Your task to perform on an android device: Set an alarm for 11am Image 0: 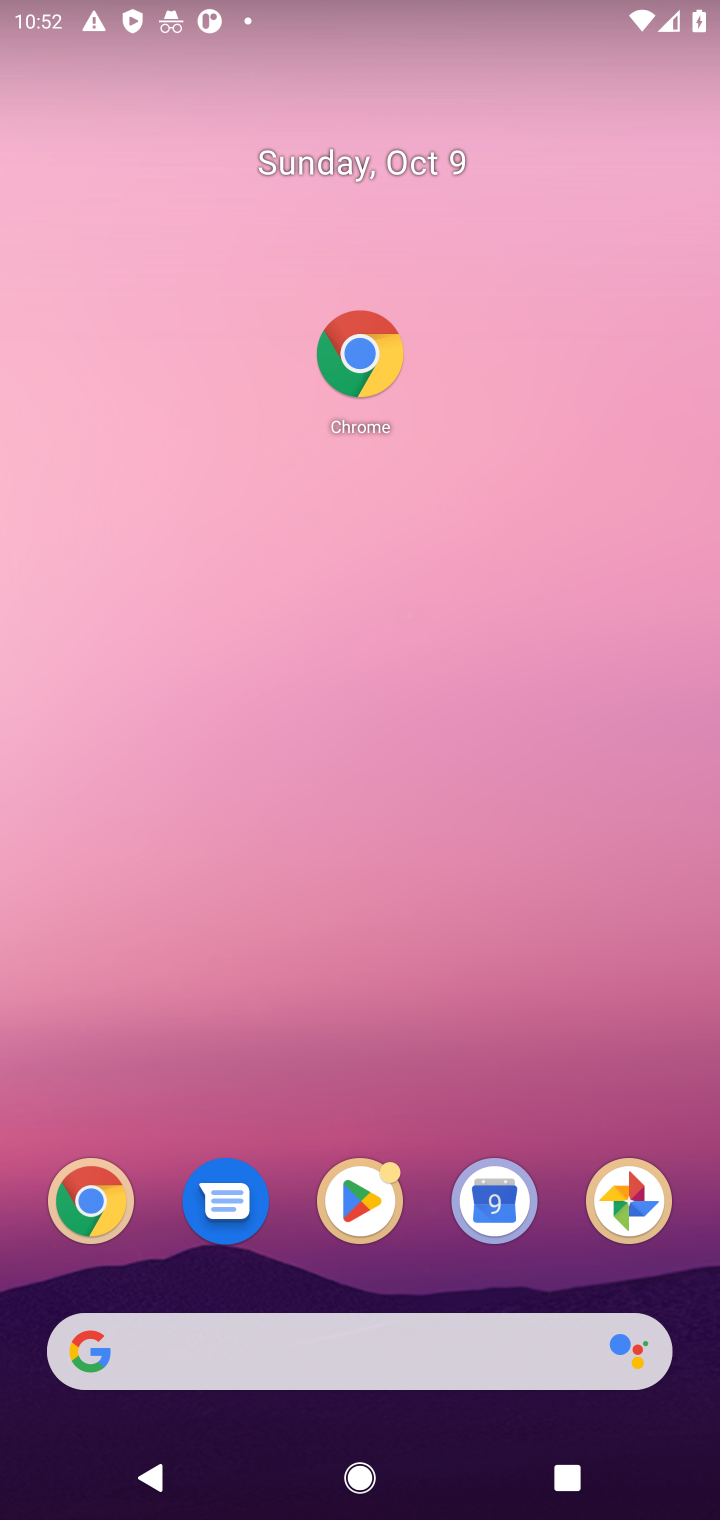
Step 0: drag from (442, 1277) to (334, 481)
Your task to perform on an android device: Set an alarm for 11am Image 1: 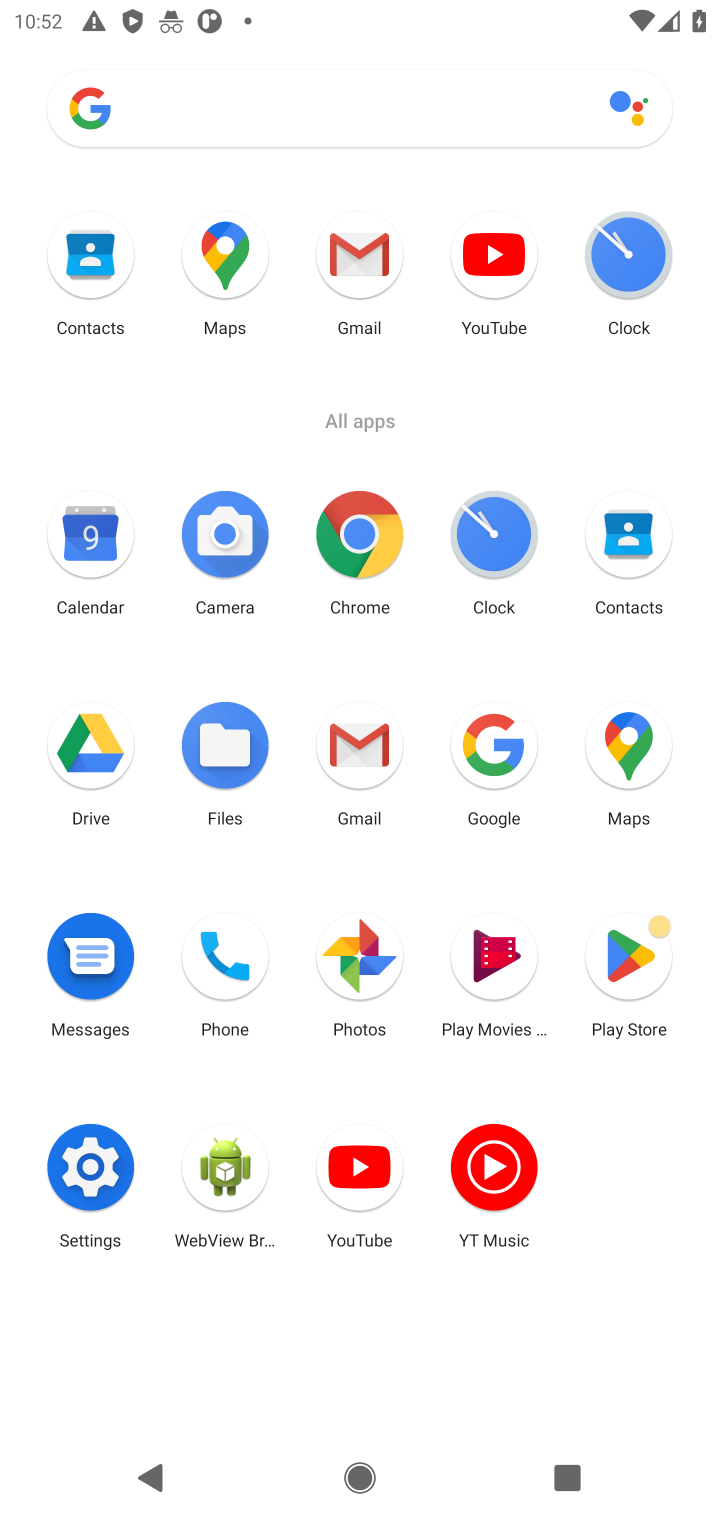
Step 1: click (510, 534)
Your task to perform on an android device: Set an alarm for 11am Image 2: 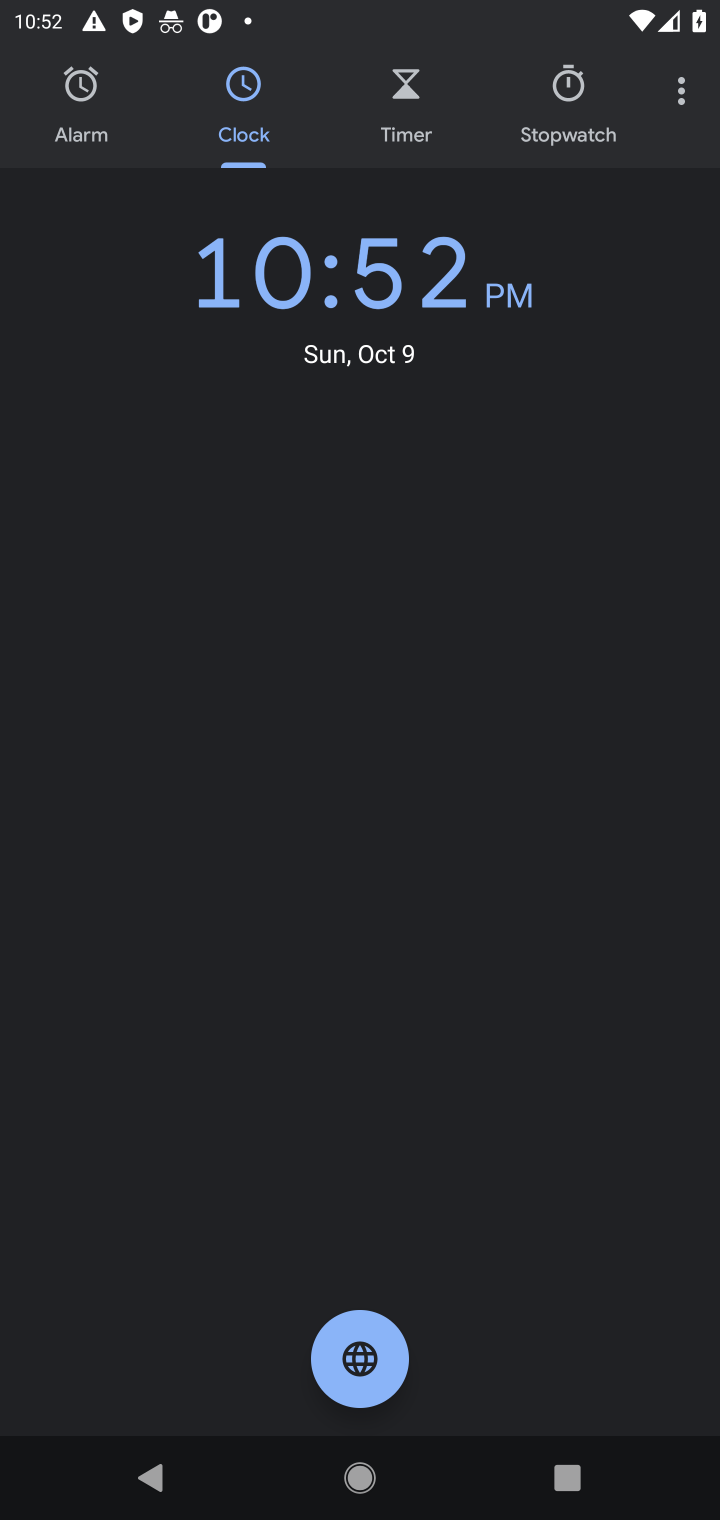
Step 2: click (77, 102)
Your task to perform on an android device: Set an alarm for 11am Image 3: 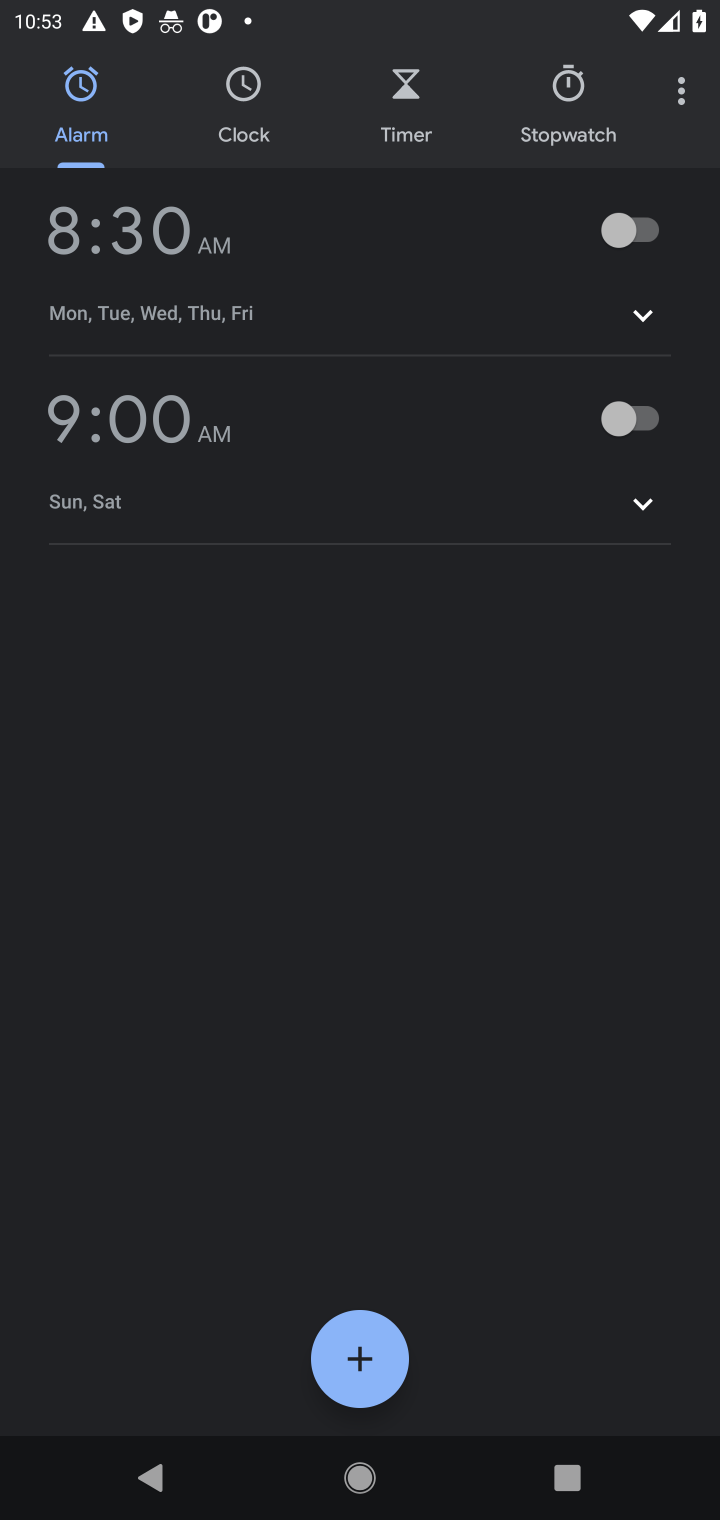
Step 3: click (251, 442)
Your task to perform on an android device: Set an alarm for 11am Image 4: 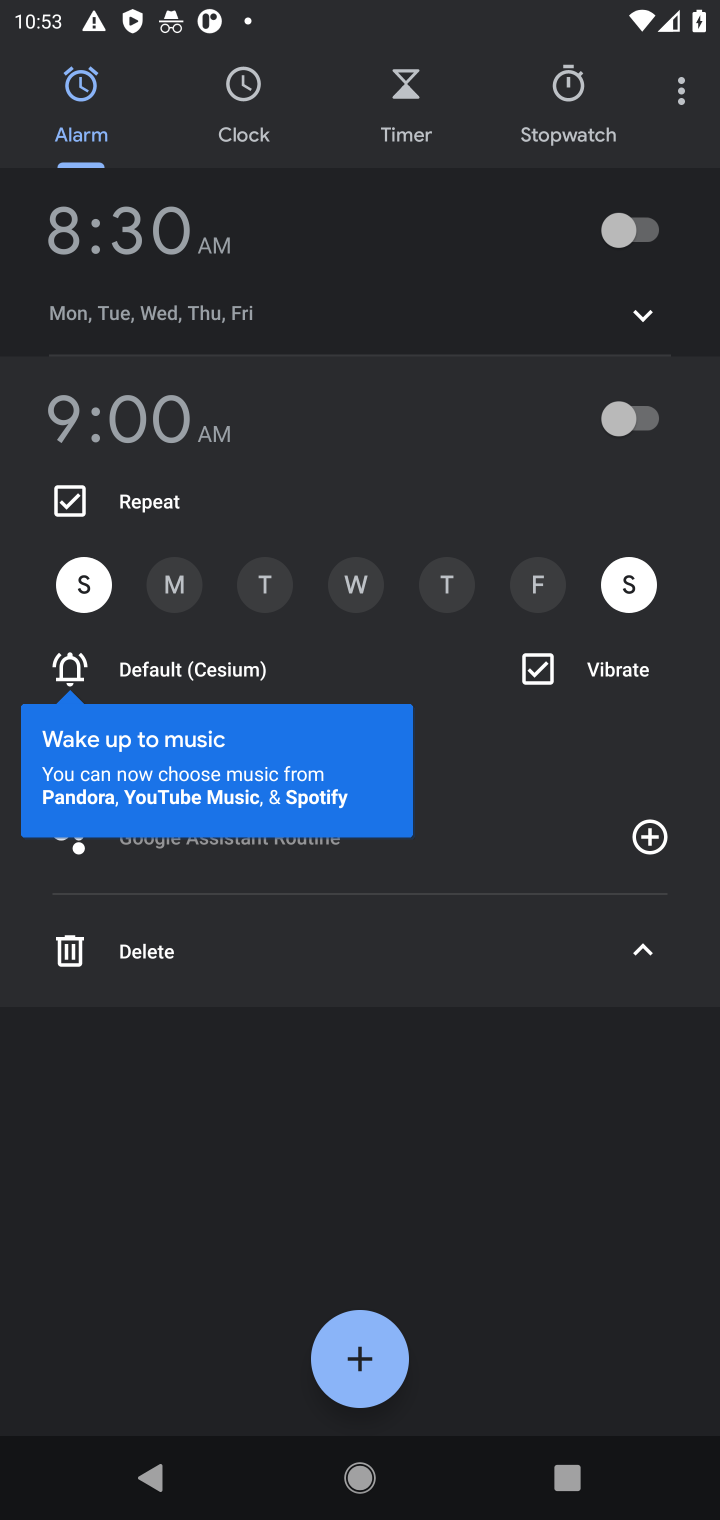
Step 4: click (100, 439)
Your task to perform on an android device: Set an alarm for 11am Image 5: 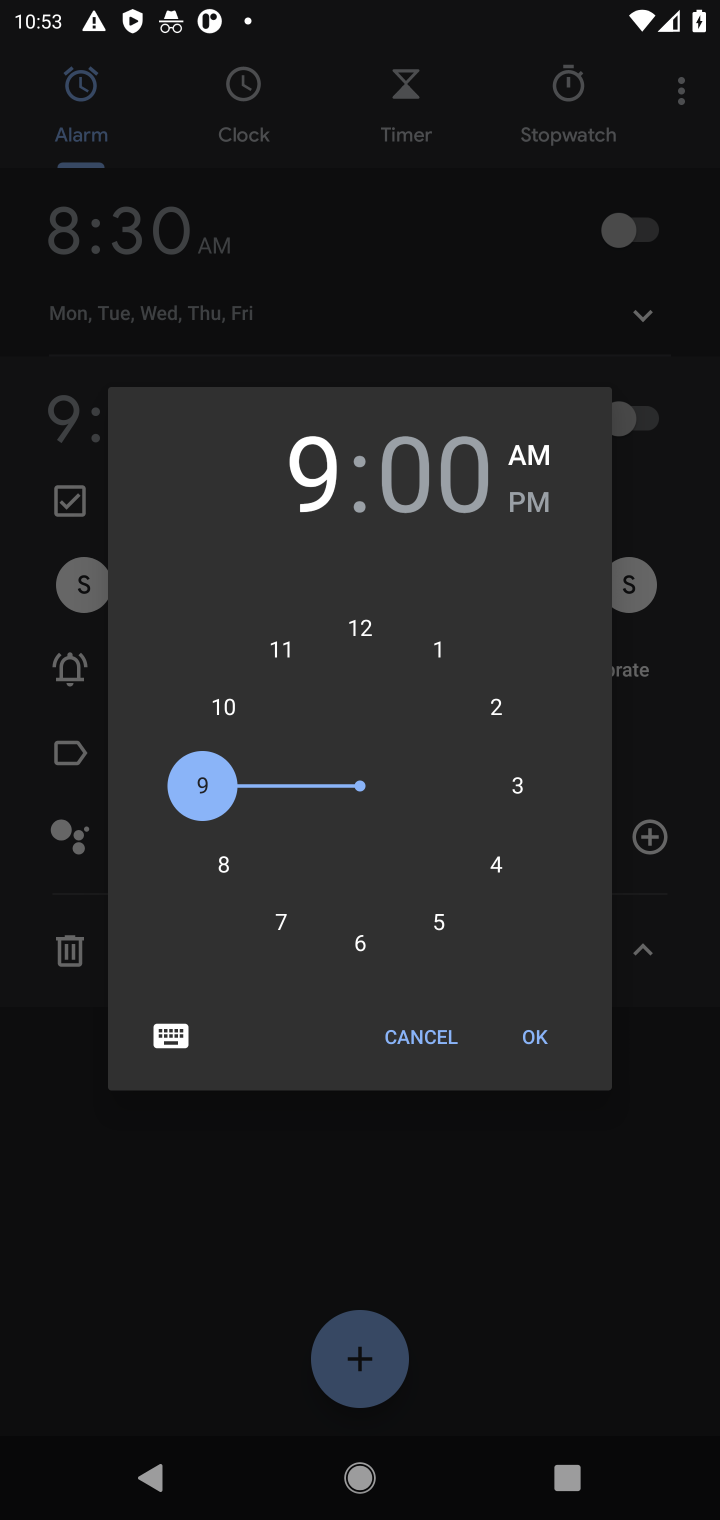
Step 5: click (287, 649)
Your task to perform on an android device: Set an alarm for 11am Image 6: 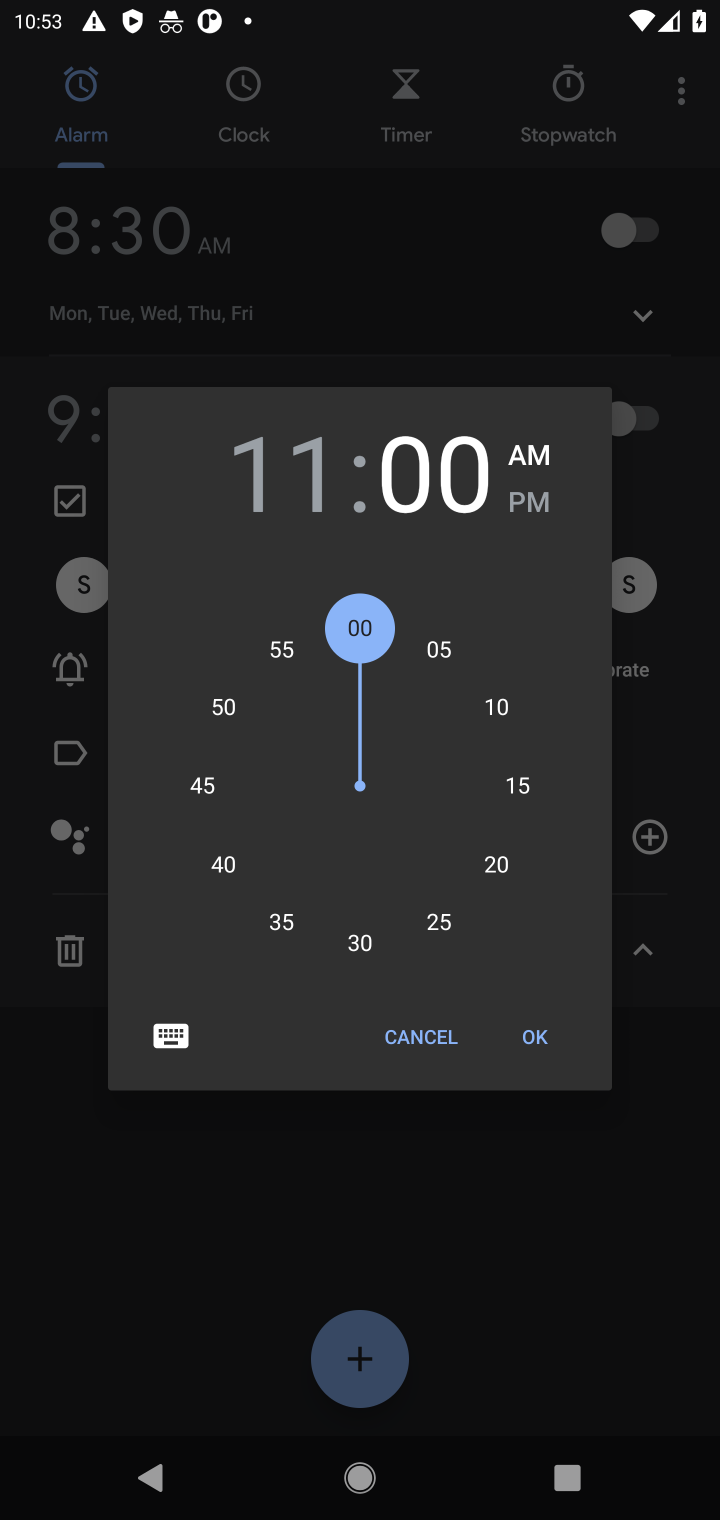
Step 6: click (517, 1019)
Your task to perform on an android device: Set an alarm for 11am Image 7: 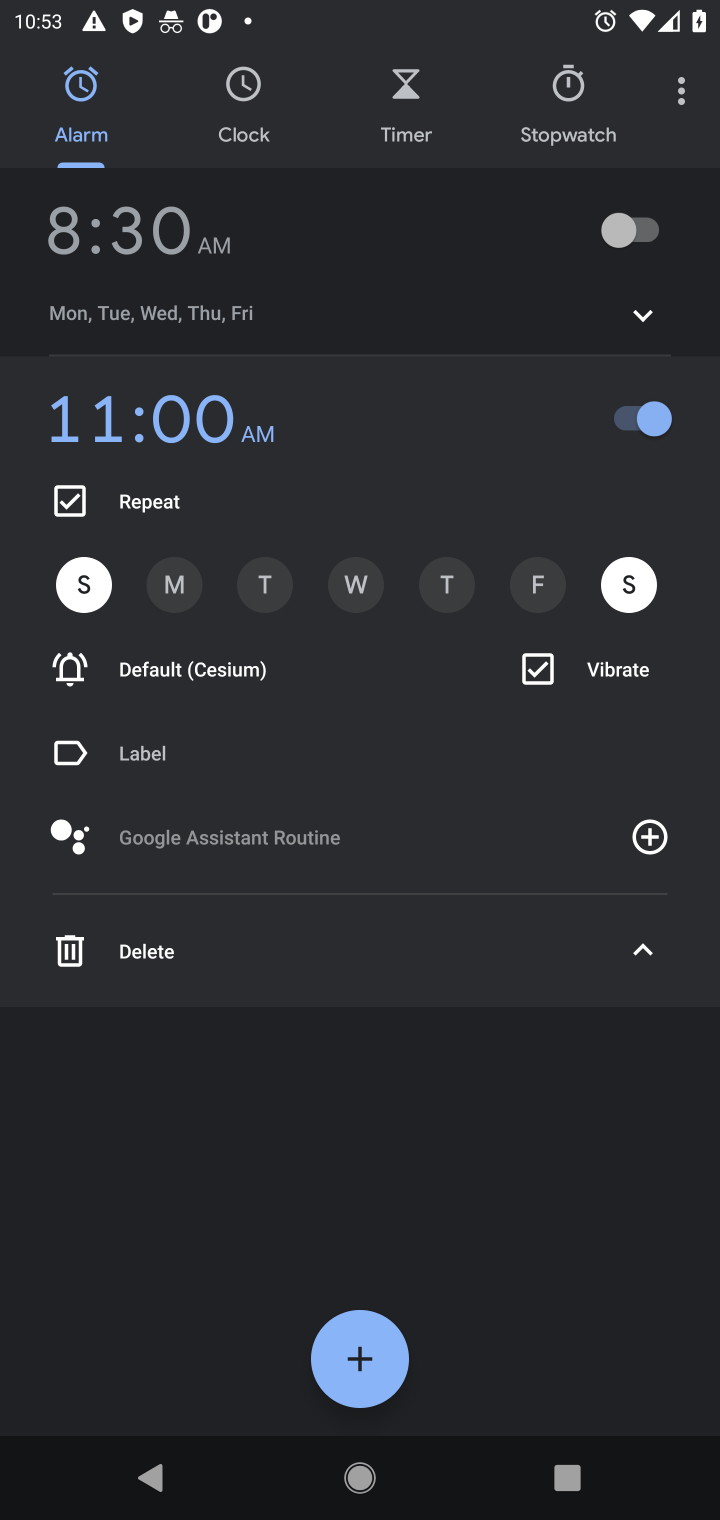
Step 7: task complete